Your task to perform on an android device: toggle pop-ups in chrome Image 0: 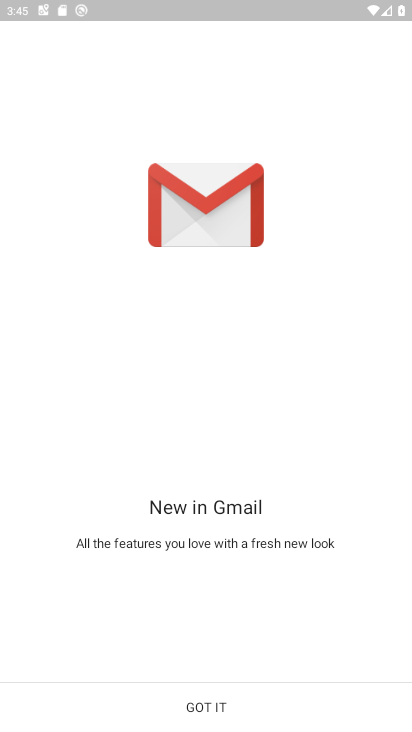
Step 0: press home button
Your task to perform on an android device: toggle pop-ups in chrome Image 1: 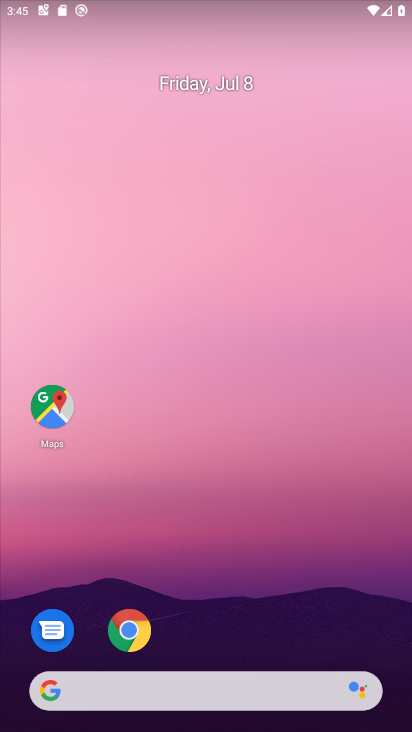
Step 1: drag from (272, 531) to (302, 67)
Your task to perform on an android device: toggle pop-ups in chrome Image 2: 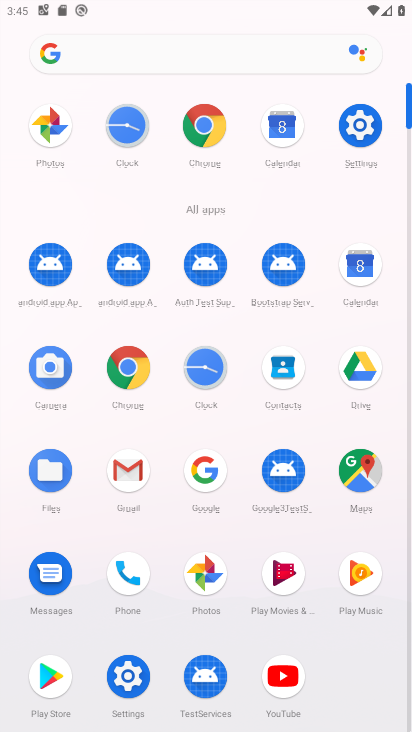
Step 2: click (214, 115)
Your task to perform on an android device: toggle pop-ups in chrome Image 3: 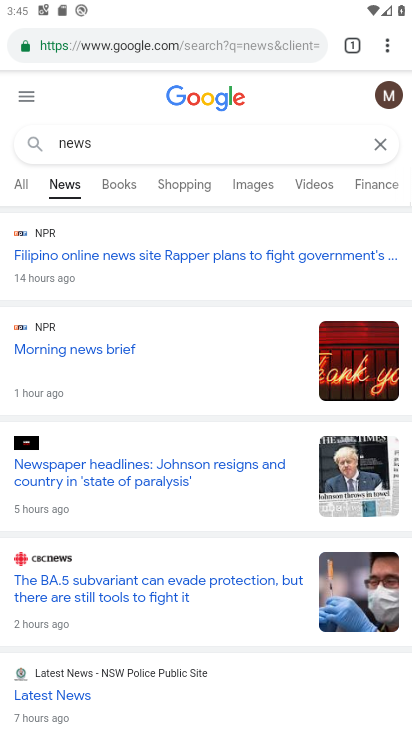
Step 3: click (389, 35)
Your task to perform on an android device: toggle pop-ups in chrome Image 4: 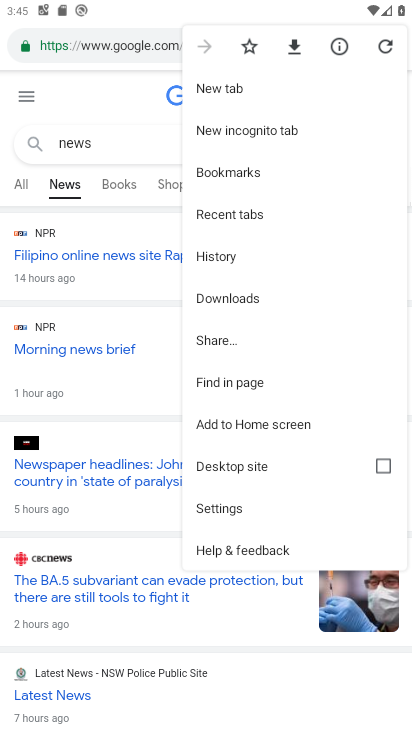
Step 4: click (226, 510)
Your task to perform on an android device: toggle pop-ups in chrome Image 5: 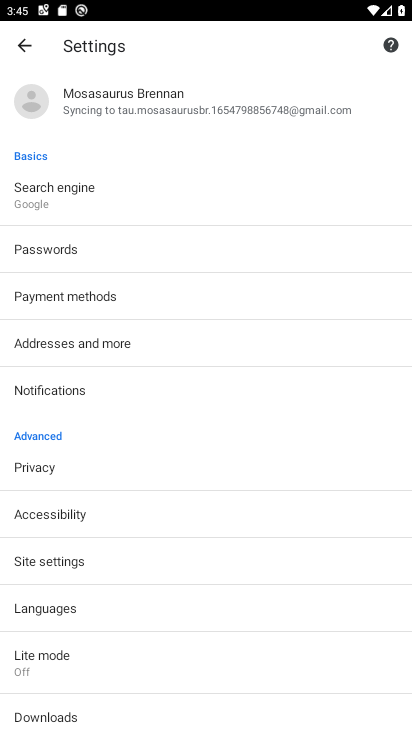
Step 5: click (67, 560)
Your task to perform on an android device: toggle pop-ups in chrome Image 6: 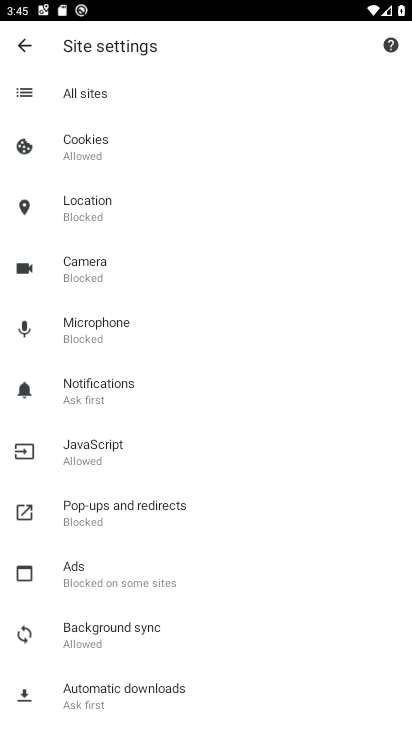
Step 6: click (146, 506)
Your task to perform on an android device: toggle pop-ups in chrome Image 7: 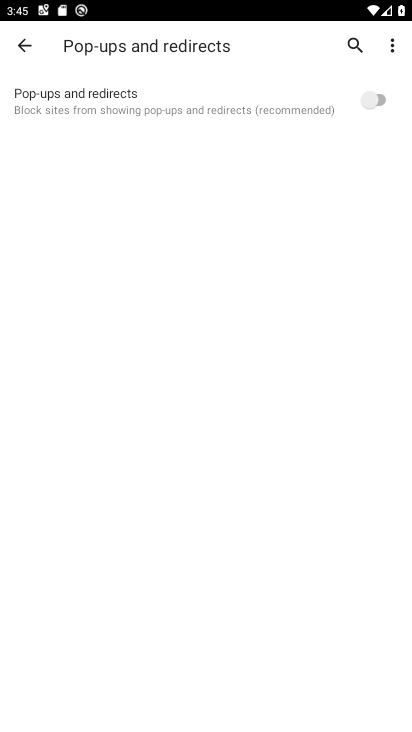
Step 7: click (381, 107)
Your task to perform on an android device: toggle pop-ups in chrome Image 8: 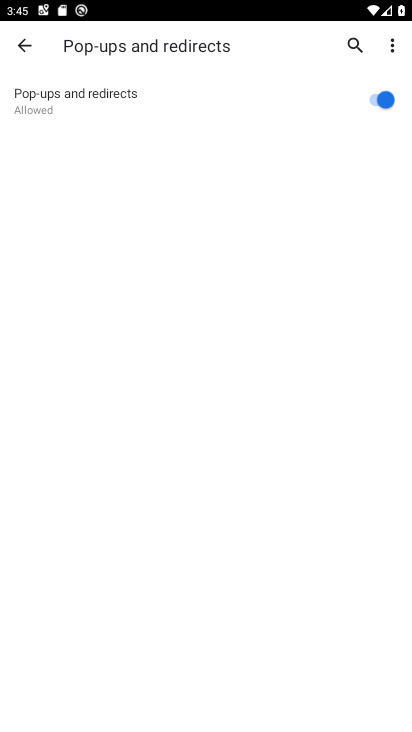
Step 8: task complete